Your task to perform on an android device: Show me productivity apps on the Play Store Image 0: 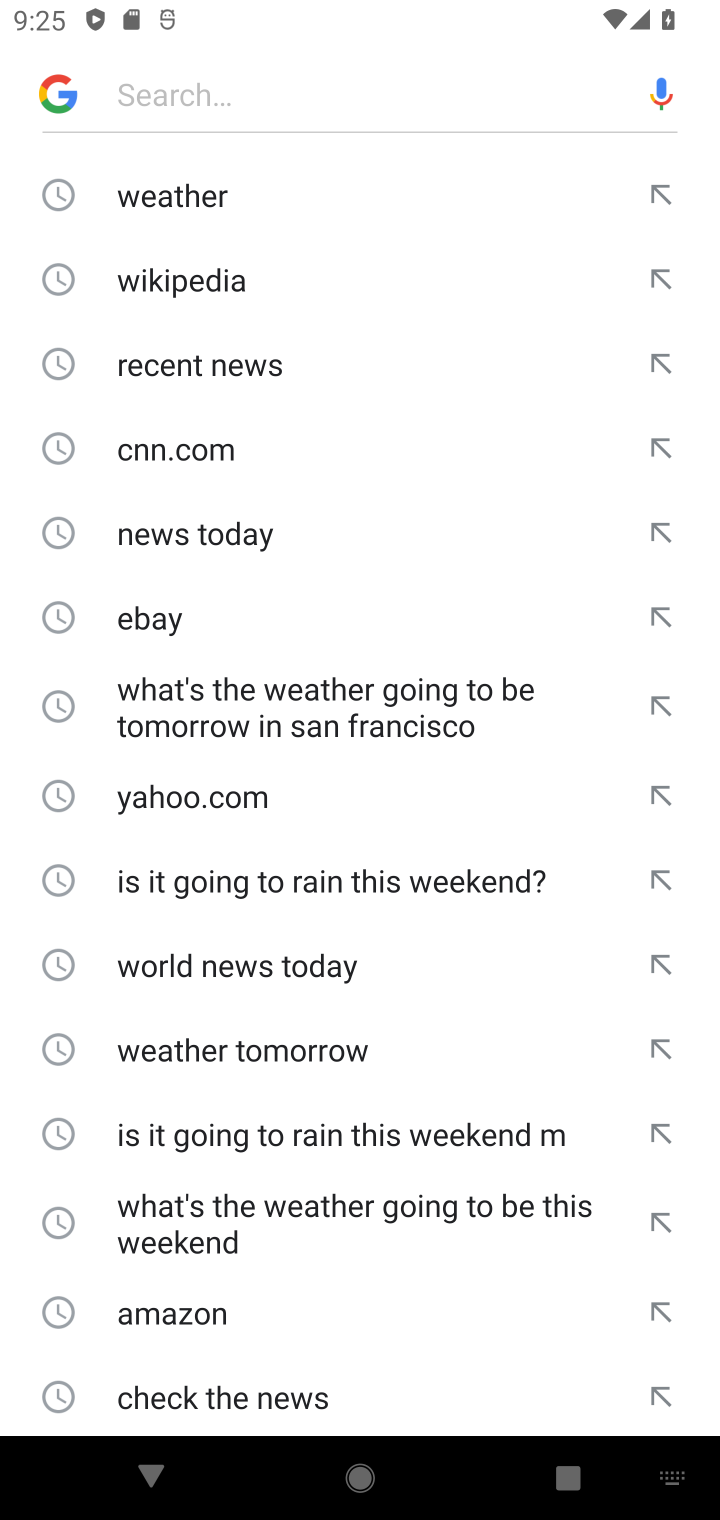
Step 0: press home button
Your task to perform on an android device: Show me productivity apps on the Play Store Image 1: 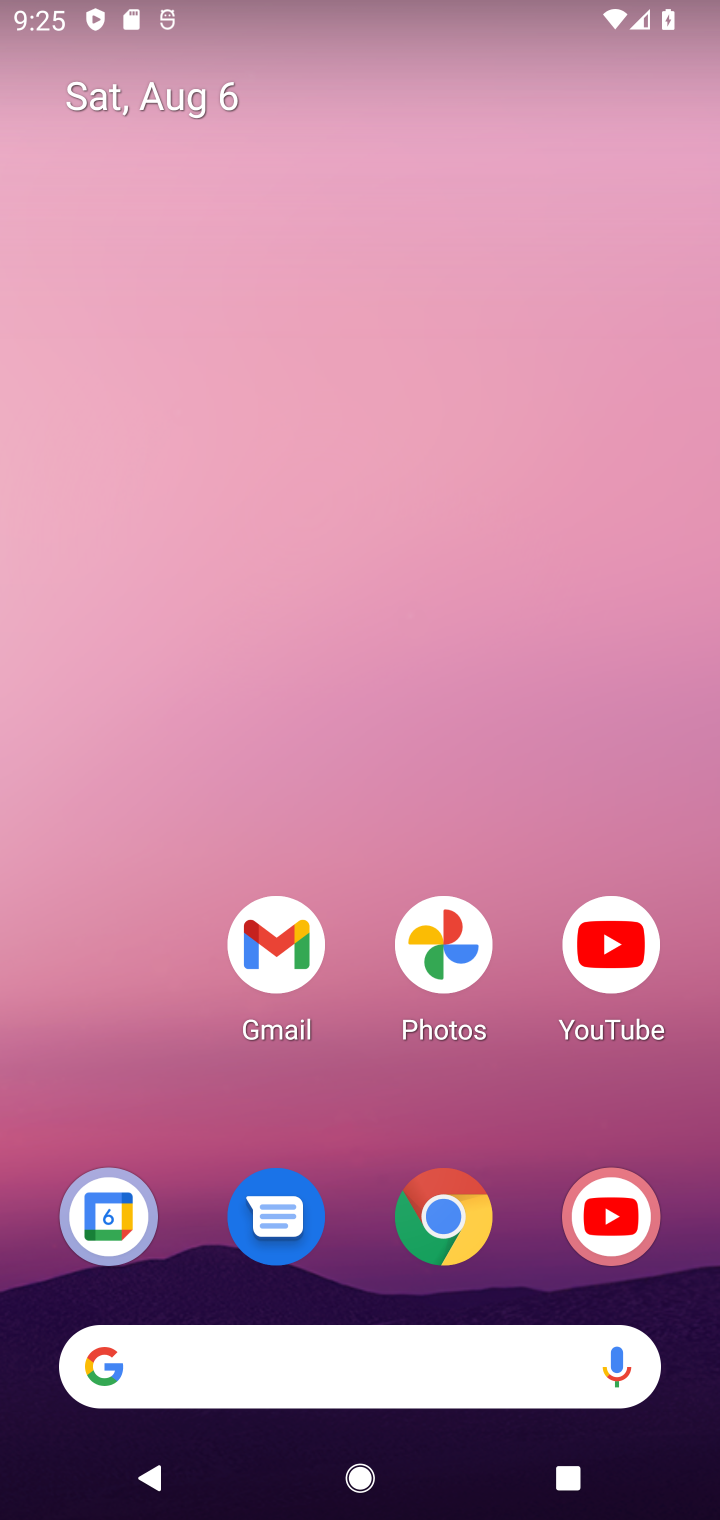
Step 1: drag from (340, 1295) to (441, 248)
Your task to perform on an android device: Show me productivity apps on the Play Store Image 2: 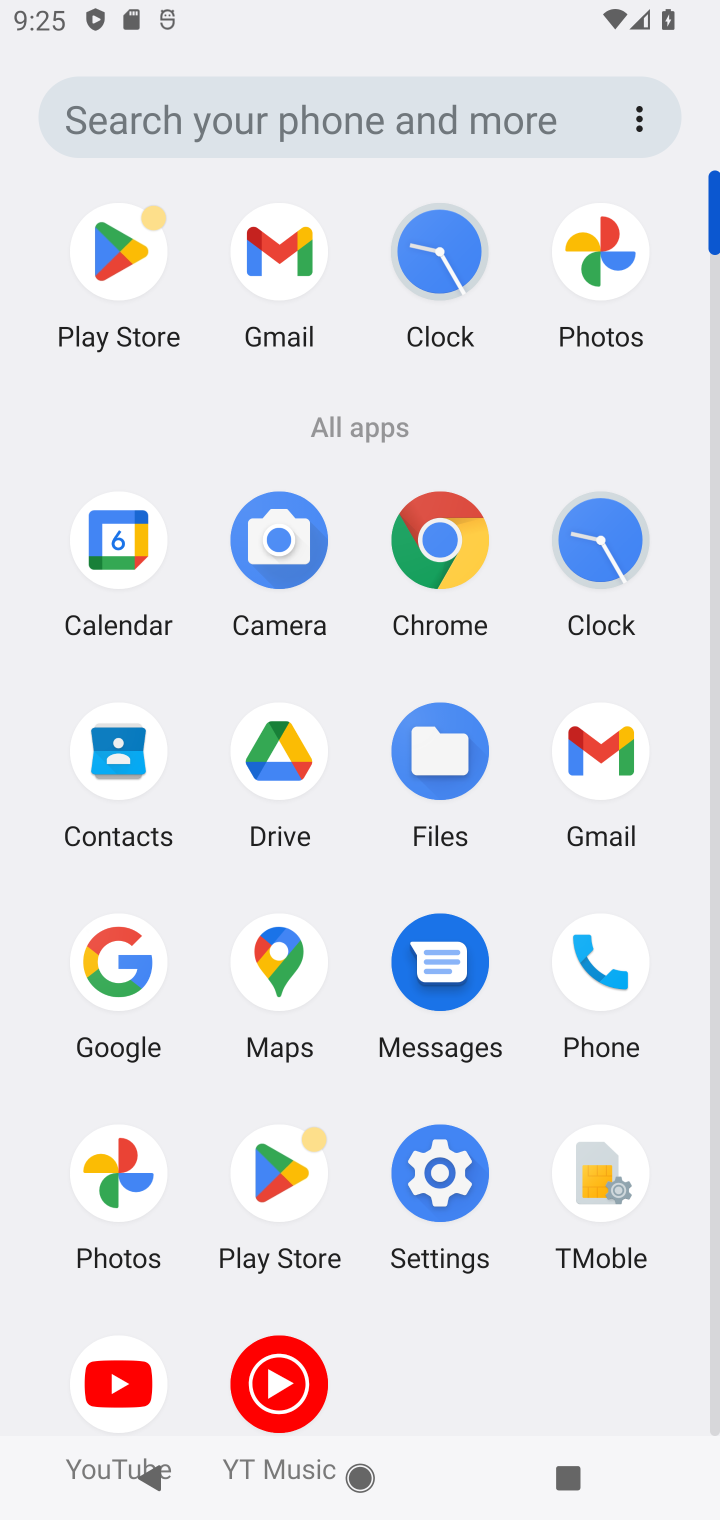
Step 2: click (288, 1171)
Your task to perform on an android device: Show me productivity apps on the Play Store Image 3: 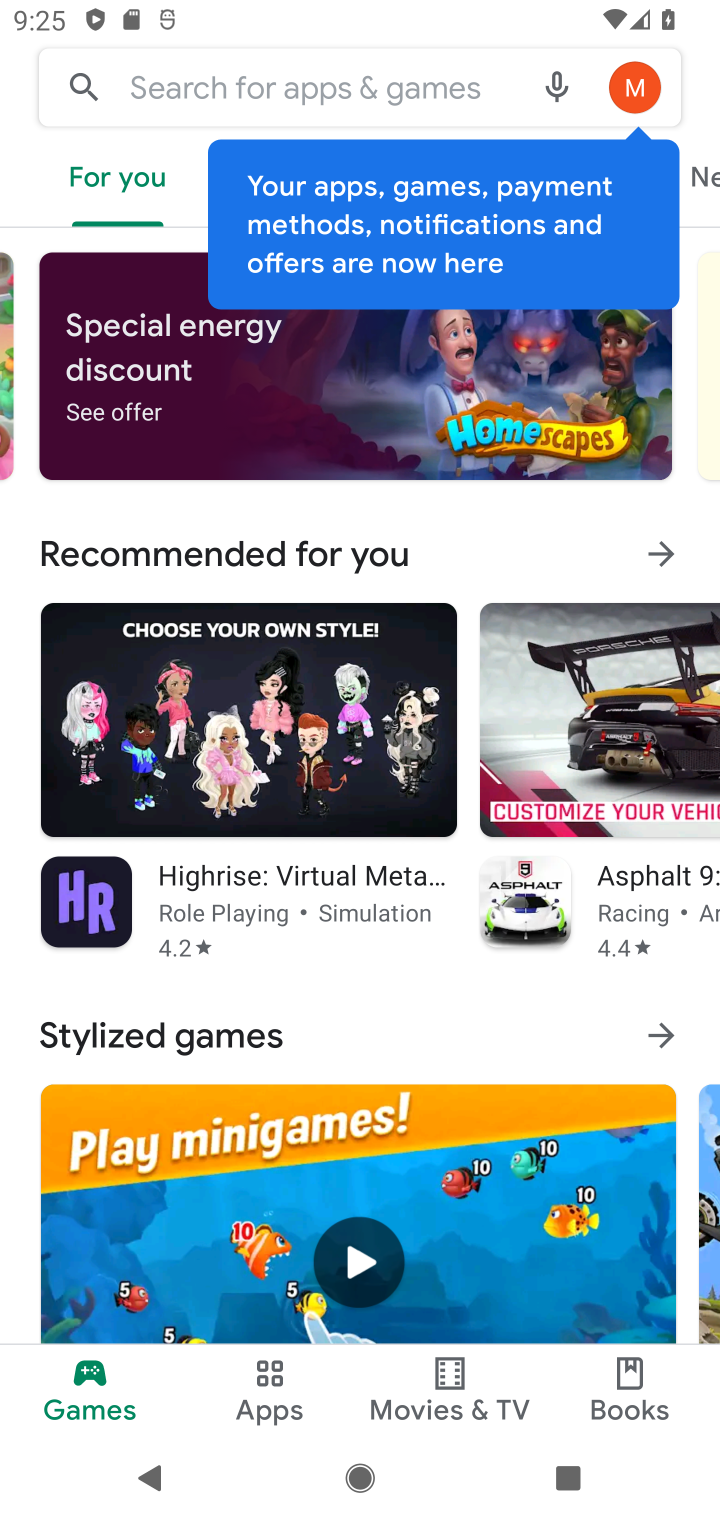
Step 3: click (267, 1393)
Your task to perform on an android device: Show me productivity apps on the Play Store Image 4: 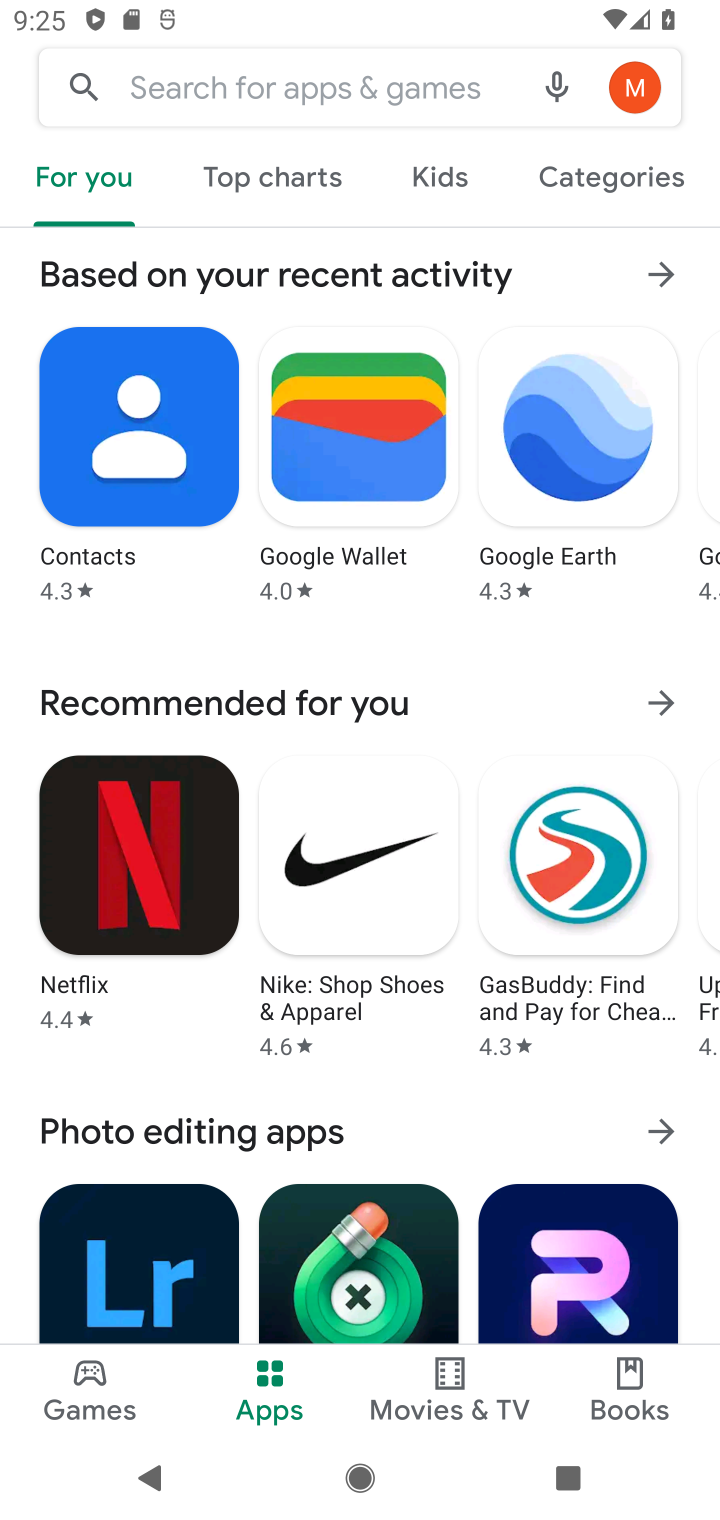
Step 4: task complete